Your task to perform on an android device: Search for seafood restaurants on Google Maps Image 0: 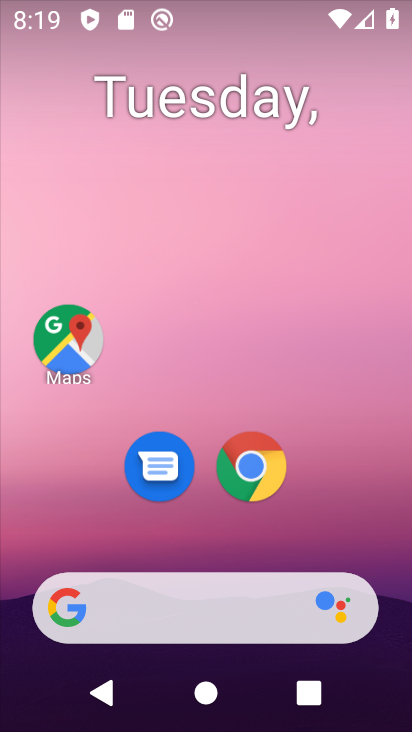
Step 0: click (82, 343)
Your task to perform on an android device: Search for seafood restaurants on Google Maps Image 1: 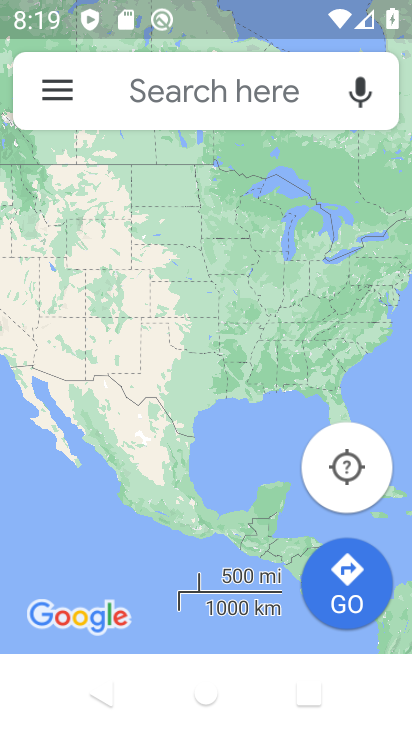
Step 1: click (220, 102)
Your task to perform on an android device: Search for seafood restaurants on Google Maps Image 2: 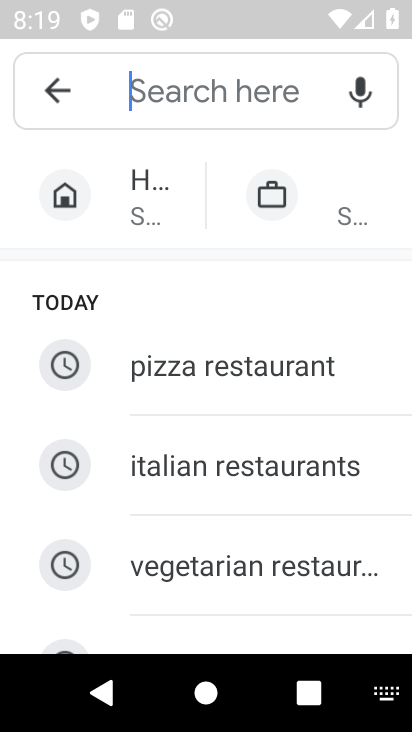
Step 2: type "seafood restaurants"
Your task to perform on an android device: Search for seafood restaurants on Google Maps Image 3: 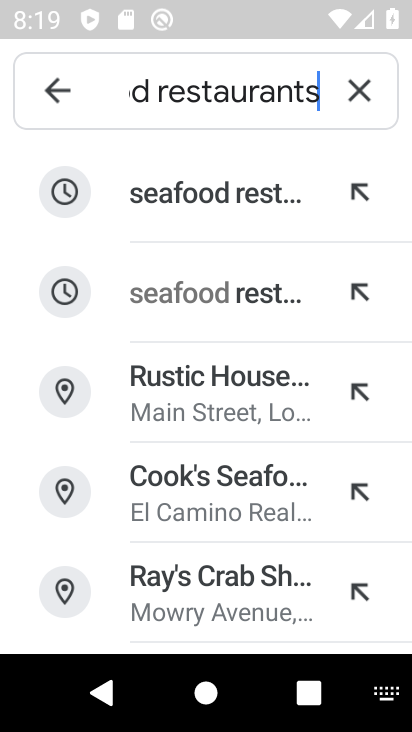
Step 3: click (225, 219)
Your task to perform on an android device: Search for seafood restaurants on Google Maps Image 4: 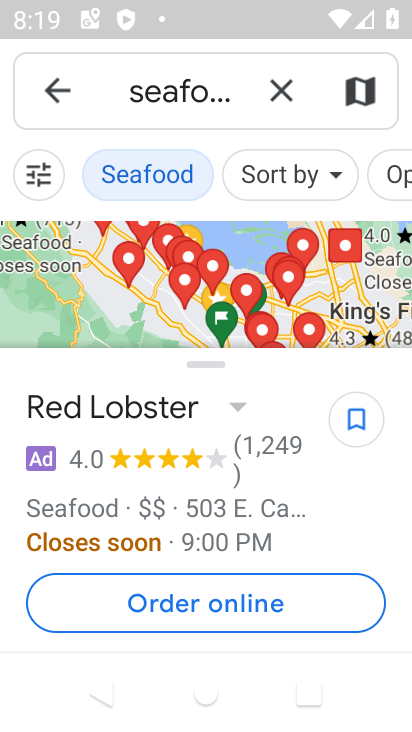
Step 4: task complete